Your task to perform on an android device: refresh tabs in the chrome app Image 0: 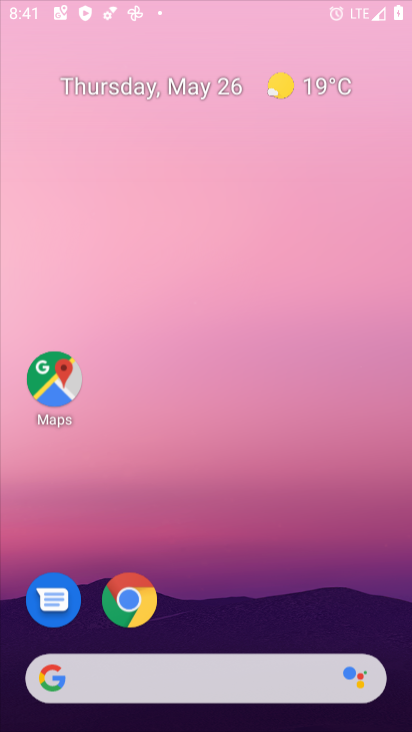
Step 0: press home button
Your task to perform on an android device: refresh tabs in the chrome app Image 1: 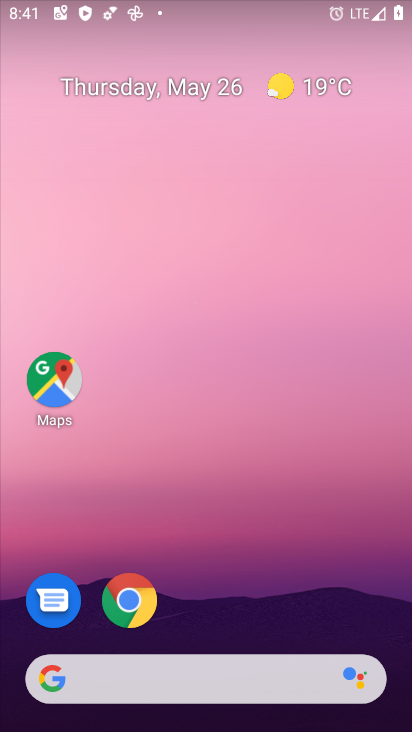
Step 1: click (130, 611)
Your task to perform on an android device: refresh tabs in the chrome app Image 2: 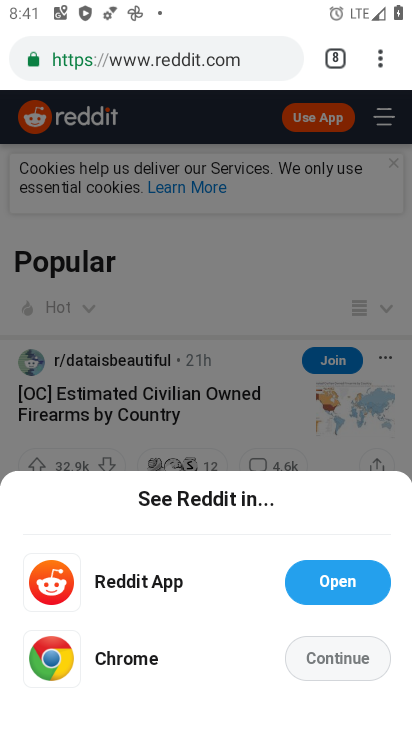
Step 2: click (384, 59)
Your task to perform on an android device: refresh tabs in the chrome app Image 3: 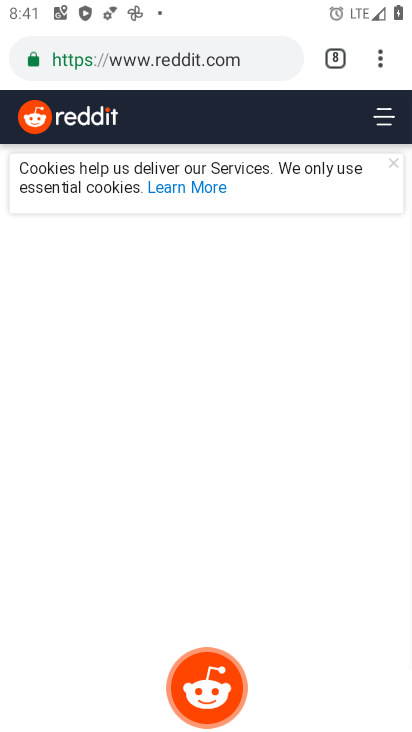
Step 3: drag from (384, 59) to (351, 88)
Your task to perform on an android device: refresh tabs in the chrome app Image 4: 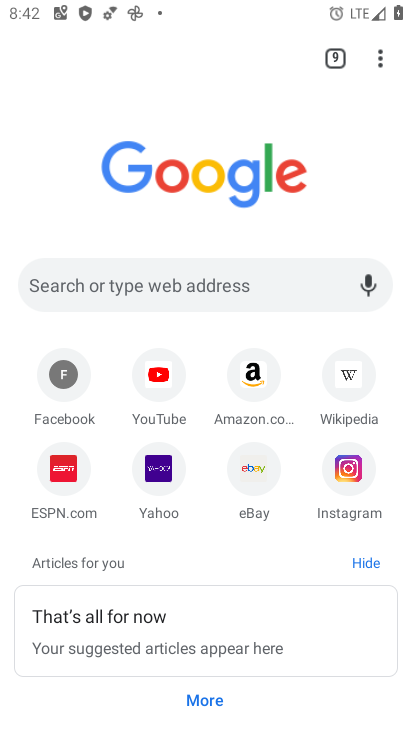
Step 4: click (376, 58)
Your task to perform on an android device: refresh tabs in the chrome app Image 5: 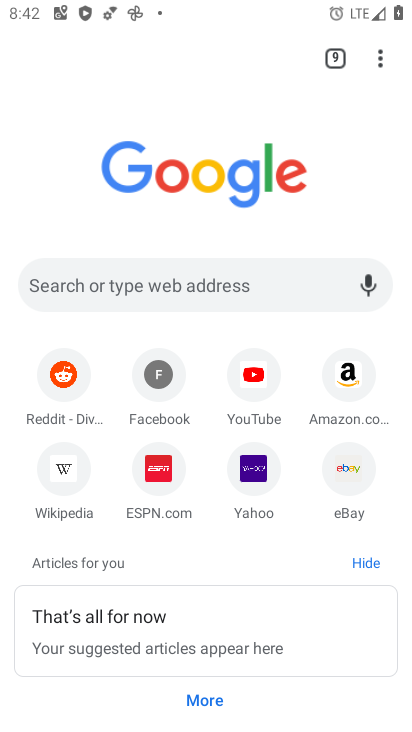
Step 5: task complete